Your task to perform on an android device: see tabs open on other devices in the chrome app Image 0: 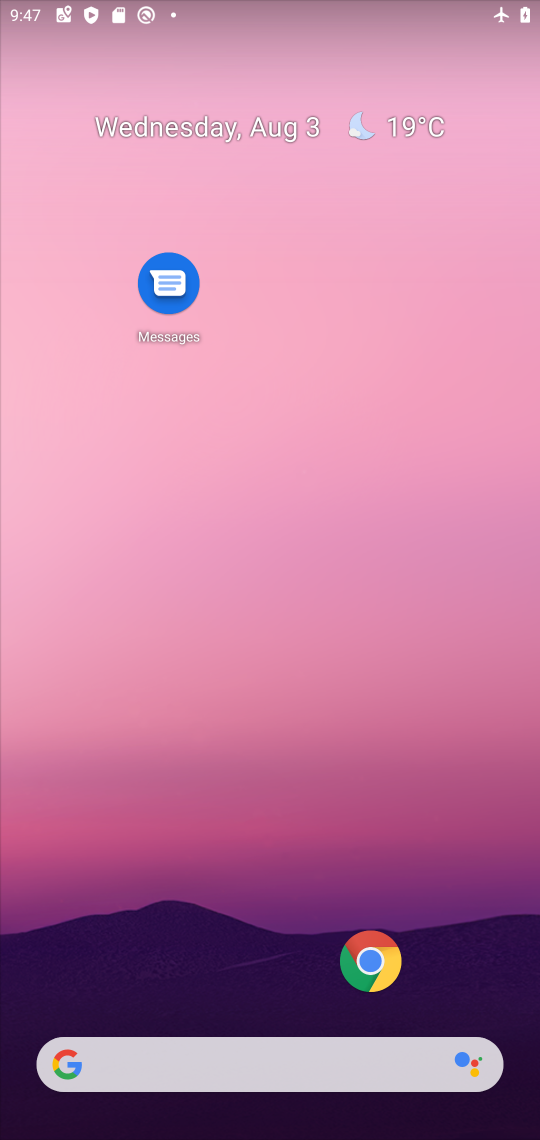
Step 0: drag from (284, 1006) to (204, 108)
Your task to perform on an android device: see tabs open on other devices in the chrome app Image 1: 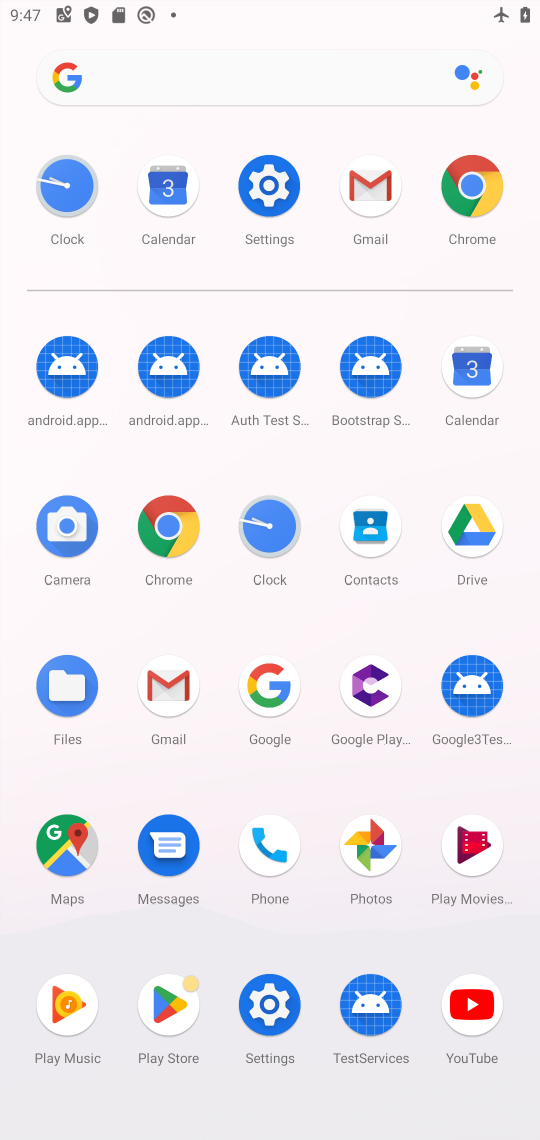
Step 1: click (178, 533)
Your task to perform on an android device: see tabs open on other devices in the chrome app Image 2: 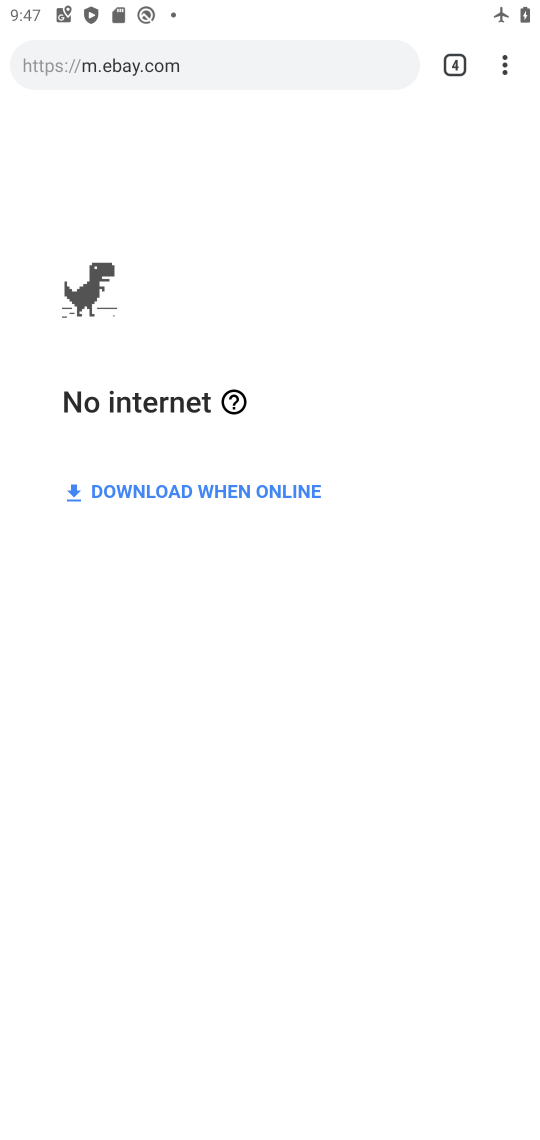
Step 2: click (447, 61)
Your task to perform on an android device: see tabs open on other devices in the chrome app Image 3: 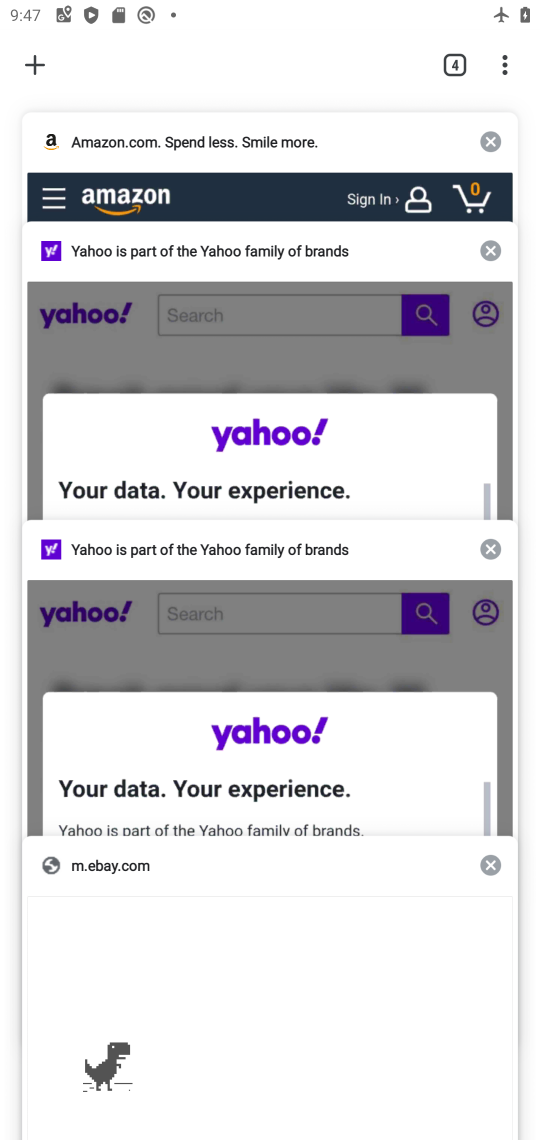
Step 3: task complete